Your task to perform on an android device: Check the news Image 0: 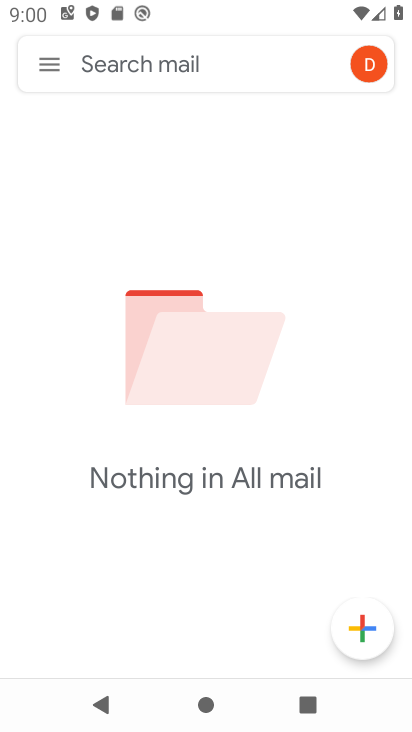
Step 0: press home button
Your task to perform on an android device: Check the news Image 1: 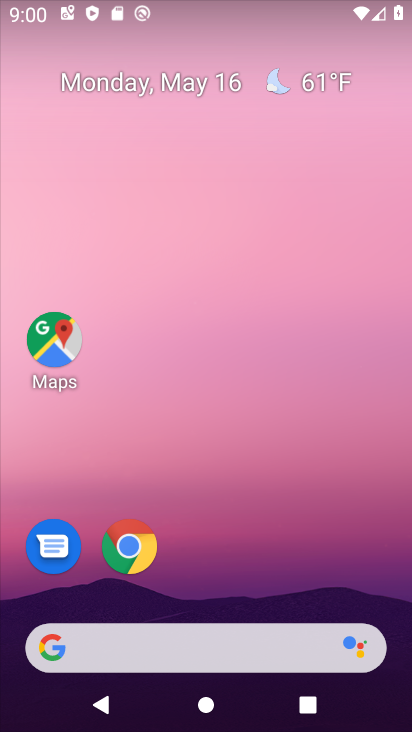
Step 1: drag from (16, 237) to (89, 204)
Your task to perform on an android device: Check the news Image 2: 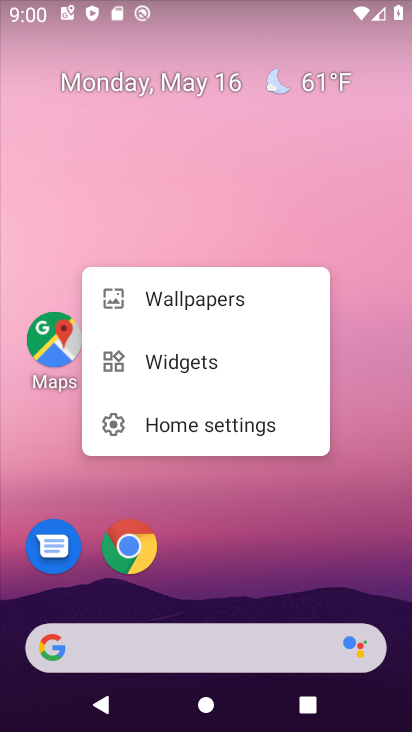
Step 2: click (11, 200)
Your task to perform on an android device: Check the news Image 3: 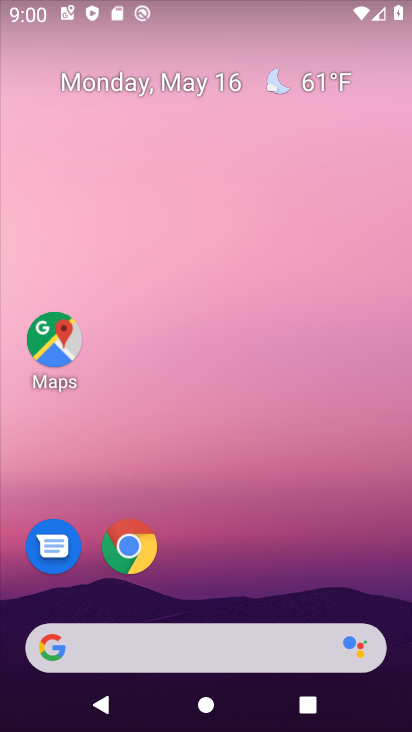
Step 3: task complete